Your task to perform on an android device: Open network settings Image 0: 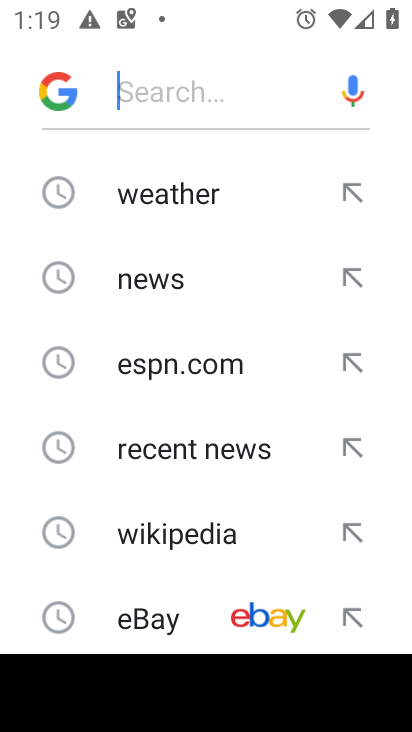
Step 0: press home button
Your task to perform on an android device: Open network settings Image 1: 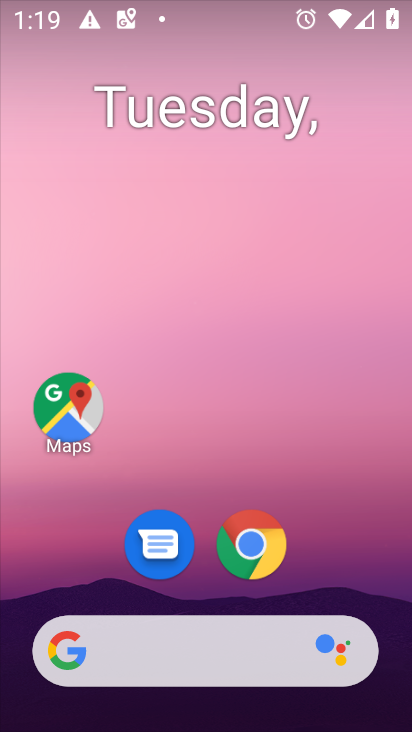
Step 1: drag from (335, 499) to (339, 18)
Your task to perform on an android device: Open network settings Image 2: 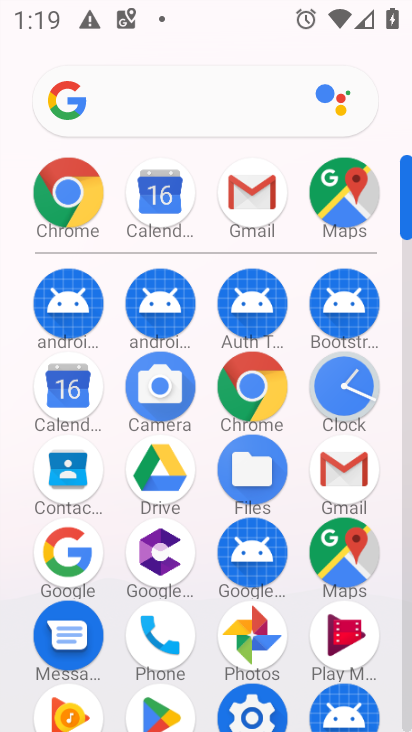
Step 2: click (256, 706)
Your task to perform on an android device: Open network settings Image 3: 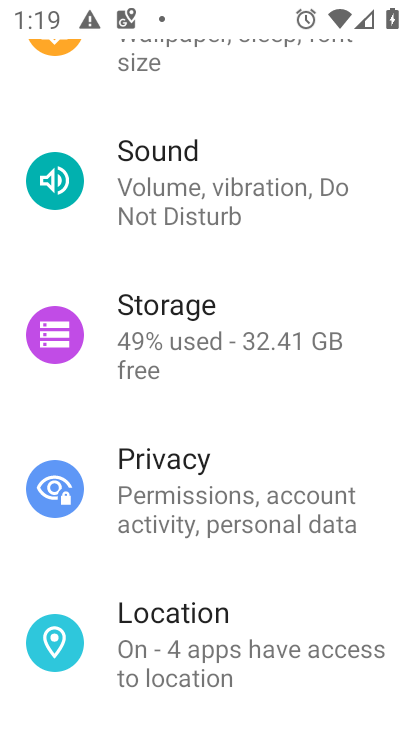
Step 3: drag from (291, 129) to (191, 721)
Your task to perform on an android device: Open network settings Image 4: 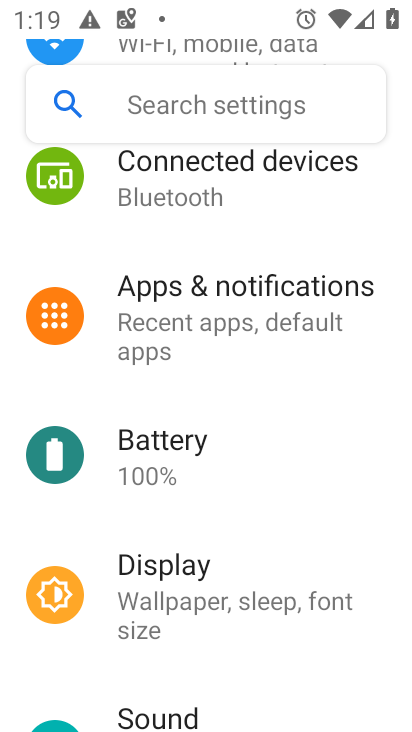
Step 4: drag from (244, 242) to (249, 616)
Your task to perform on an android device: Open network settings Image 5: 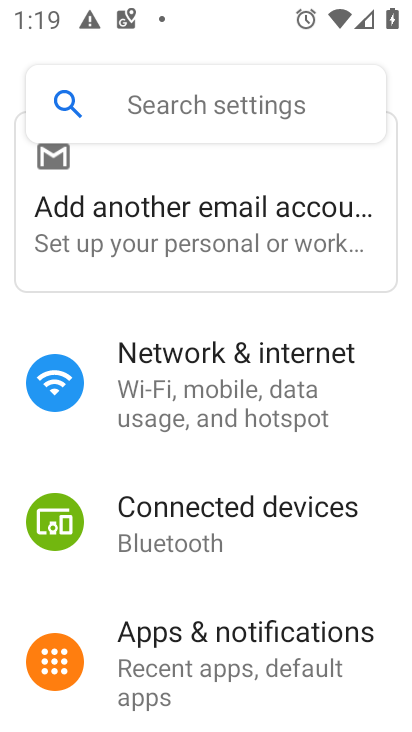
Step 5: click (211, 371)
Your task to perform on an android device: Open network settings Image 6: 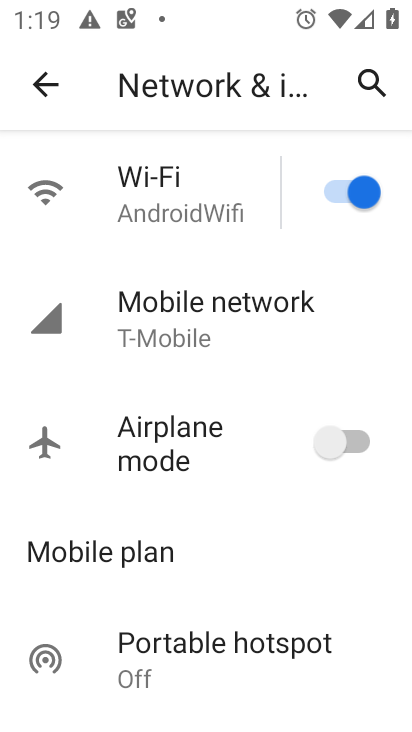
Step 6: task complete